Your task to perform on an android device: toggle data saver in the chrome app Image 0: 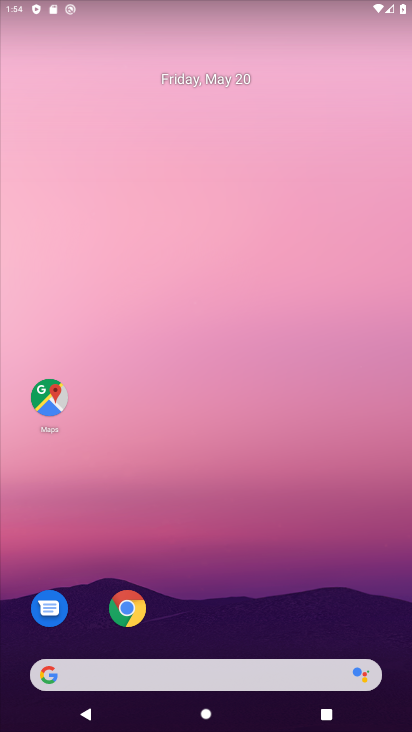
Step 0: drag from (203, 518) to (261, 139)
Your task to perform on an android device: toggle data saver in the chrome app Image 1: 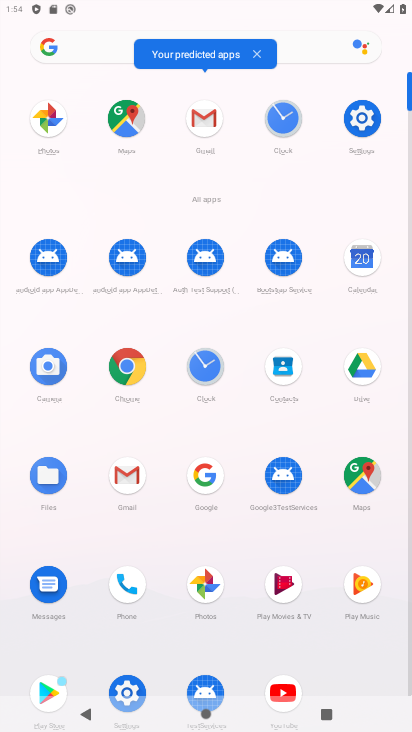
Step 1: click (376, 119)
Your task to perform on an android device: toggle data saver in the chrome app Image 2: 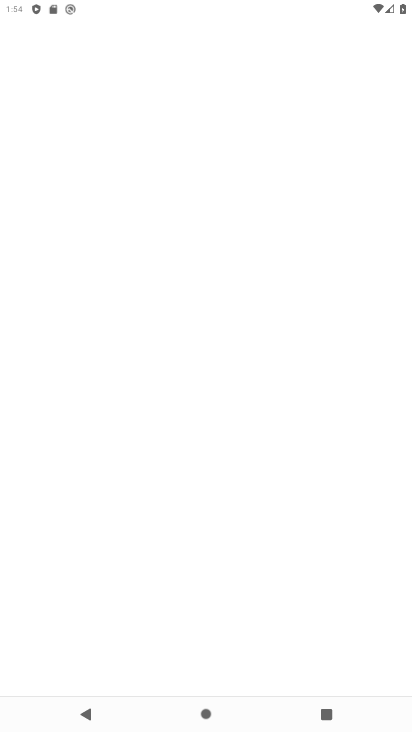
Step 2: press back button
Your task to perform on an android device: toggle data saver in the chrome app Image 3: 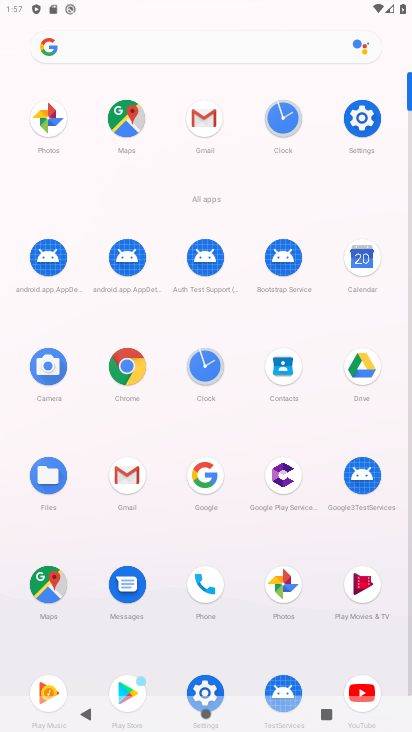
Step 3: click (131, 377)
Your task to perform on an android device: toggle data saver in the chrome app Image 4: 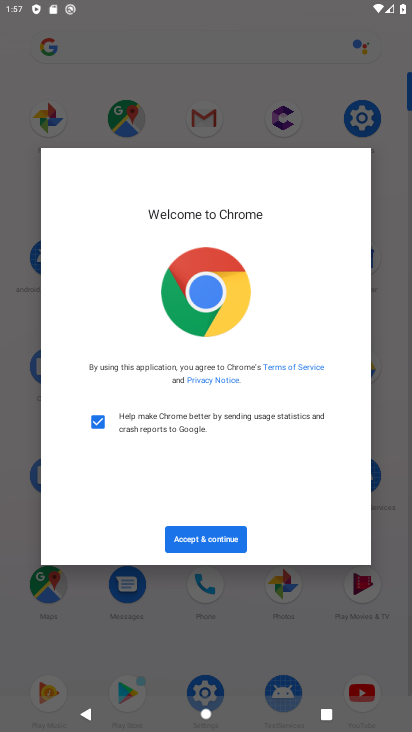
Step 4: click (183, 541)
Your task to perform on an android device: toggle data saver in the chrome app Image 5: 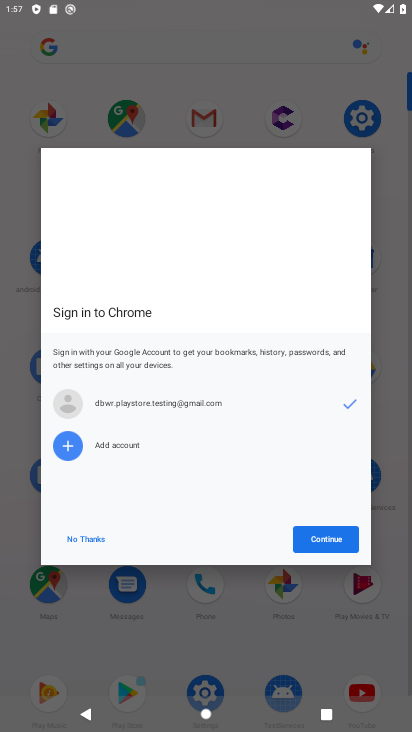
Step 5: click (304, 535)
Your task to perform on an android device: toggle data saver in the chrome app Image 6: 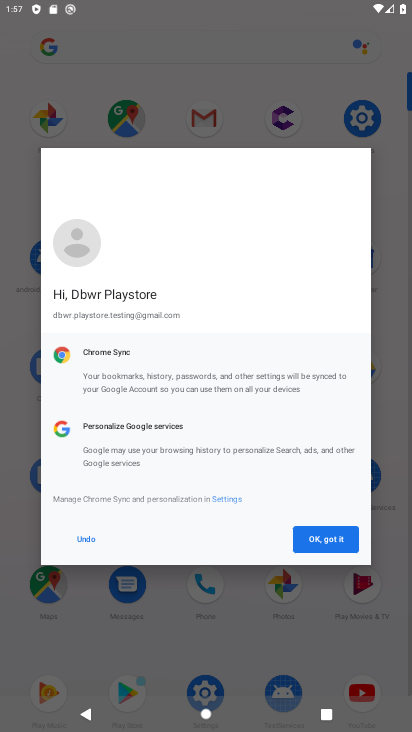
Step 6: click (328, 538)
Your task to perform on an android device: toggle data saver in the chrome app Image 7: 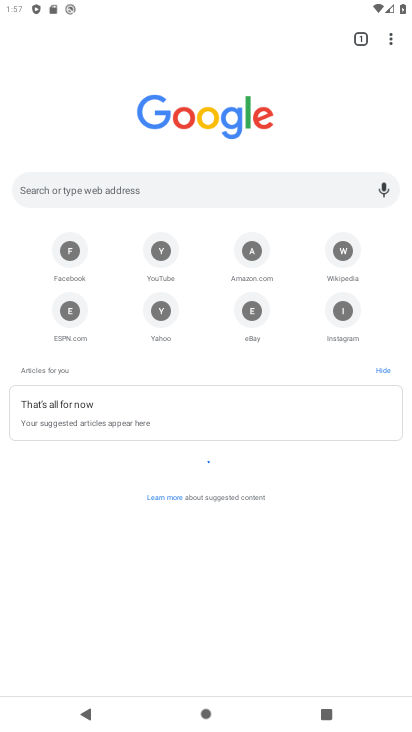
Step 7: drag from (387, 38) to (254, 319)
Your task to perform on an android device: toggle data saver in the chrome app Image 8: 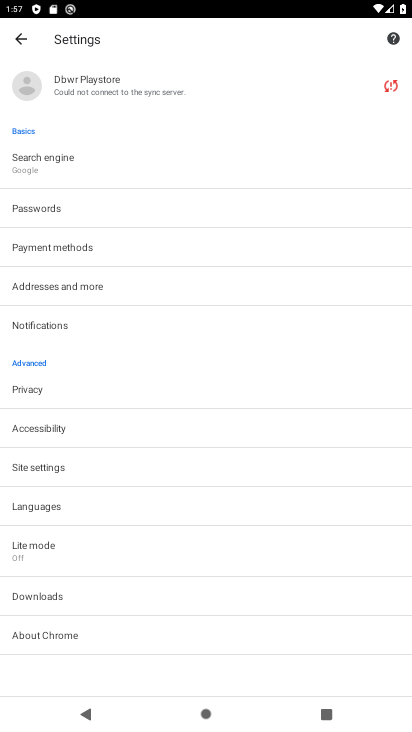
Step 8: click (58, 546)
Your task to perform on an android device: toggle data saver in the chrome app Image 9: 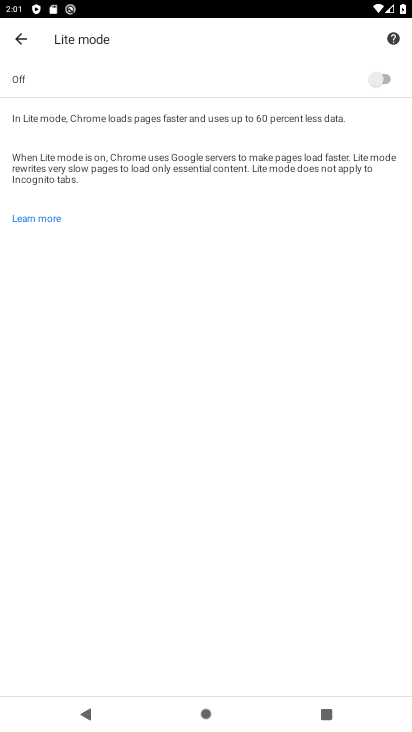
Step 9: click (380, 83)
Your task to perform on an android device: toggle data saver in the chrome app Image 10: 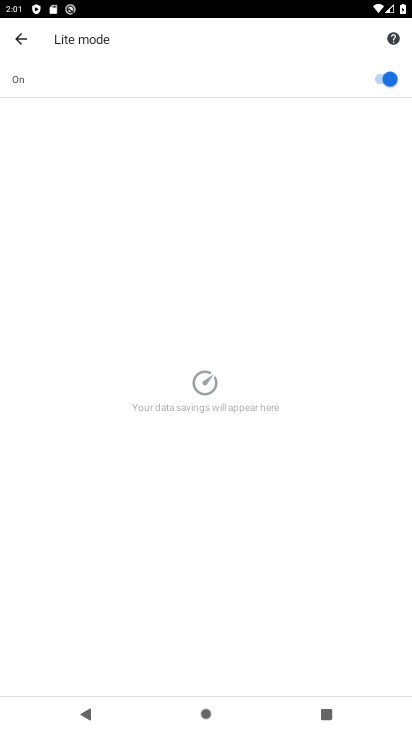
Step 10: task complete